Your task to perform on an android device: Is it going to rain tomorrow? Image 0: 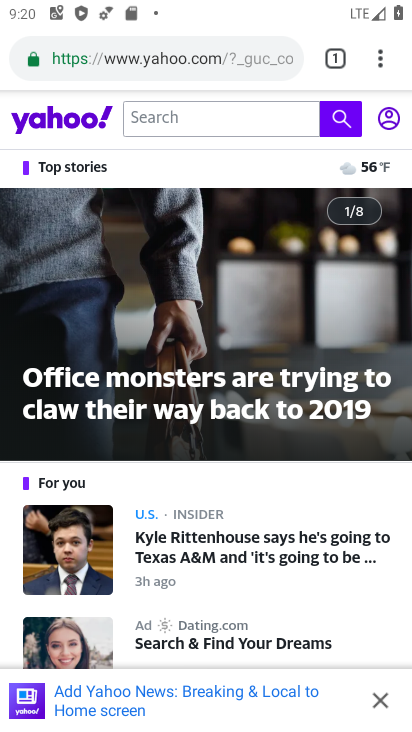
Step 0: press home button
Your task to perform on an android device: Is it going to rain tomorrow? Image 1: 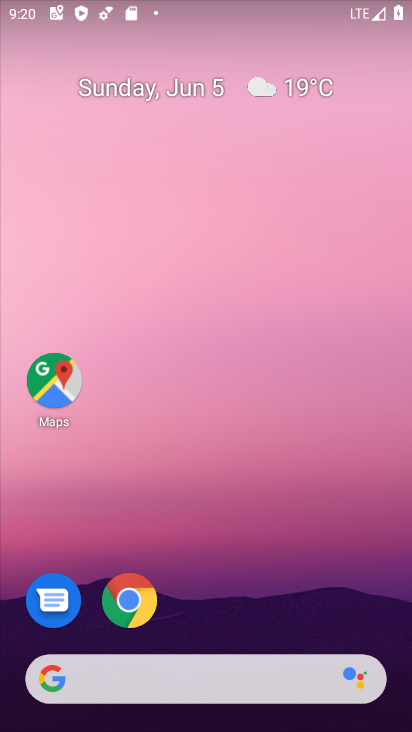
Step 1: drag from (235, 639) to (230, 358)
Your task to perform on an android device: Is it going to rain tomorrow? Image 2: 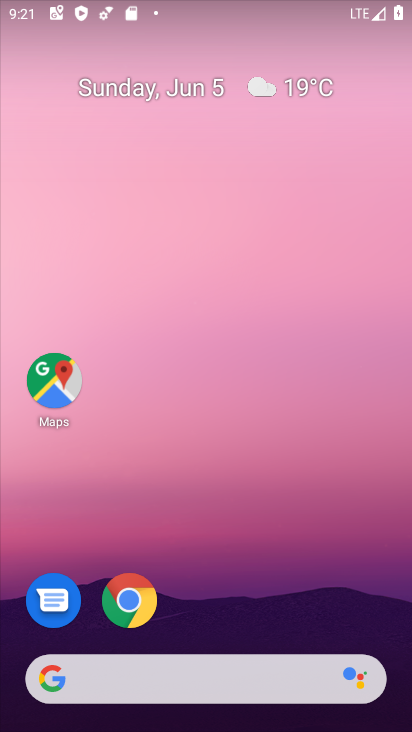
Step 2: drag from (267, 600) to (406, 0)
Your task to perform on an android device: Is it going to rain tomorrow? Image 3: 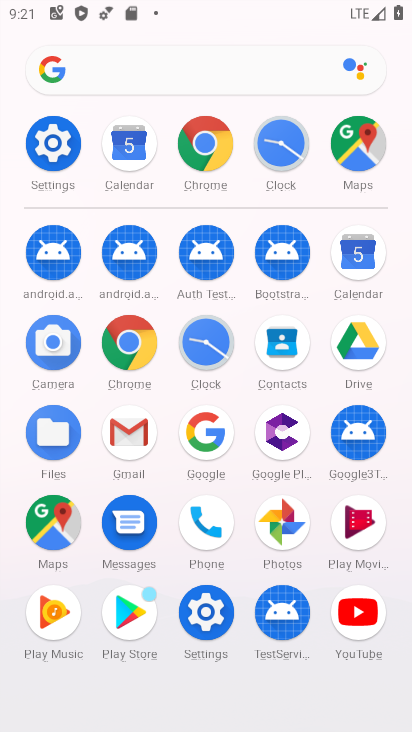
Step 3: click (216, 156)
Your task to perform on an android device: Is it going to rain tomorrow? Image 4: 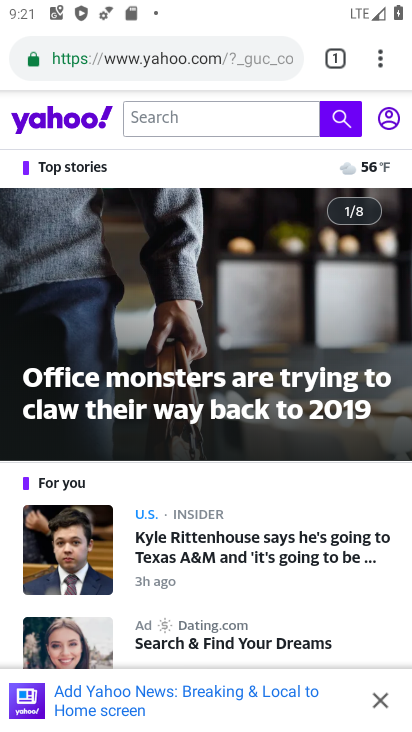
Step 4: click (275, 63)
Your task to perform on an android device: Is it going to rain tomorrow? Image 5: 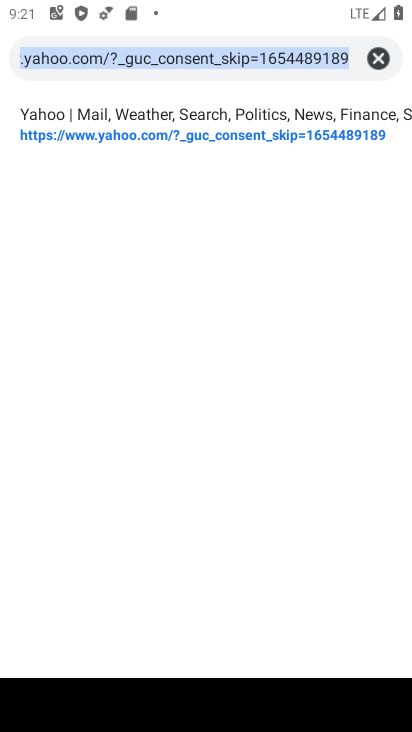
Step 5: click (393, 724)
Your task to perform on an android device: Is it going to rain tomorrow? Image 6: 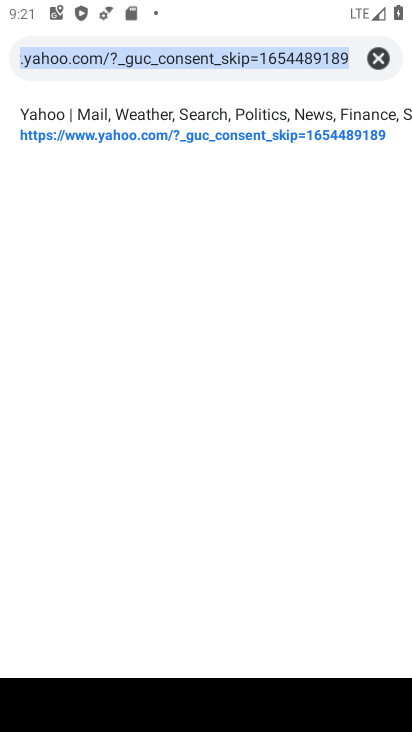
Step 6: type "Is it going to rain tomorrow?"
Your task to perform on an android device: Is it going to rain tomorrow? Image 7: 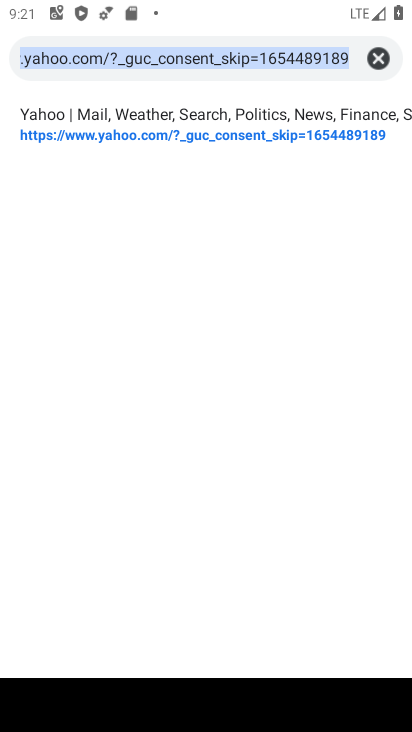
Step 7: drag from (388, 730) to (403, 435)
Your task to perform on an android device: Is it going to rain tomorrow? Image 8: 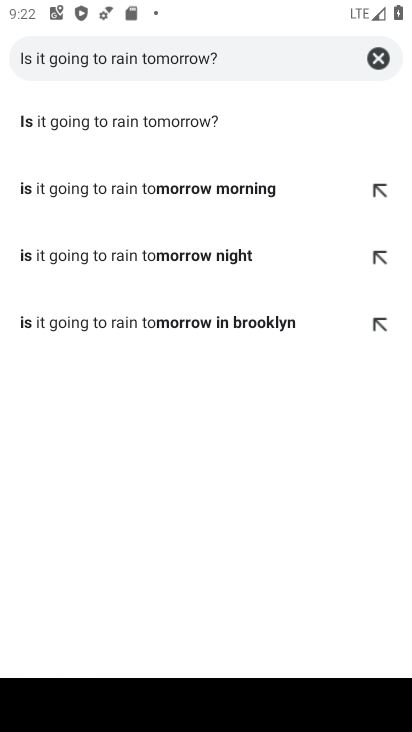
Step 8: click (115, 136)
Your task to perform on an android device: Is it going to rain tomorrow? Image 9: 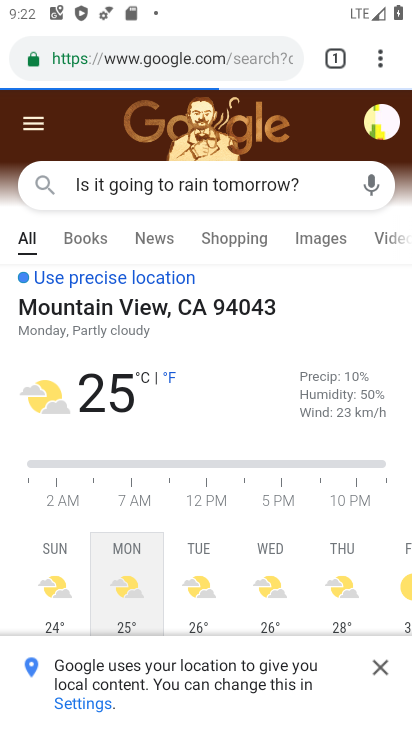
Step 9: task complete